Your task to perform on an android device: turn off location Image 0: 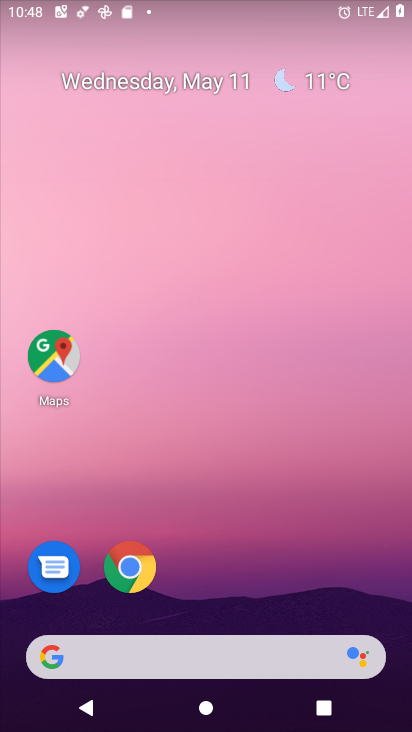
Step 0: drag from (231, 547) to (166, 83)
Your task to perform on an android device: turn off location Image 1: 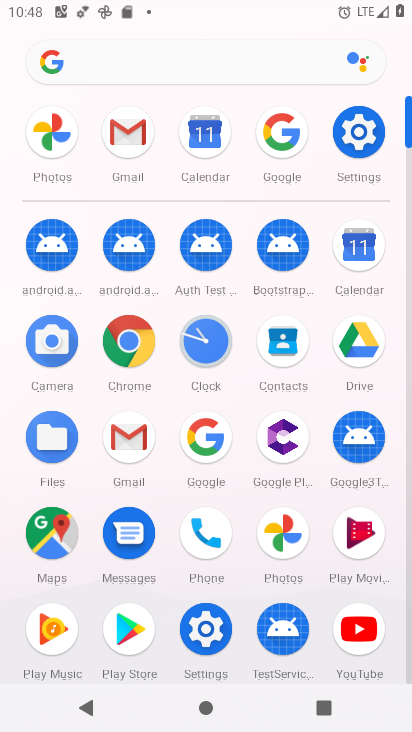
Step 1: click (360, 132)
Your task to perform on an android device: turn off location Image 2: 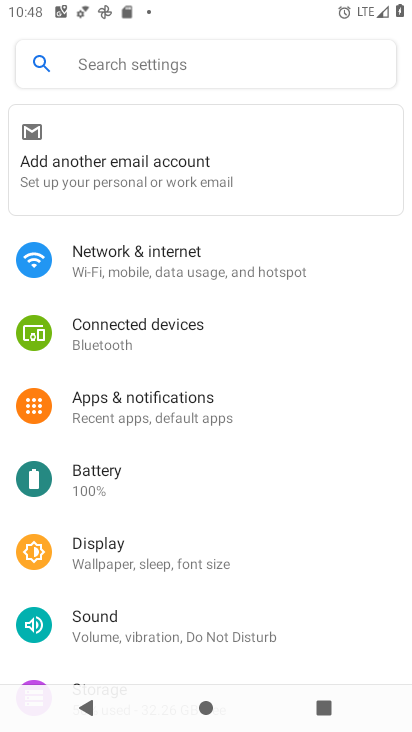
Step 2: drag from (180, 618) to (184, 125)
Your task to perform on an android device: turn off location Image 3: 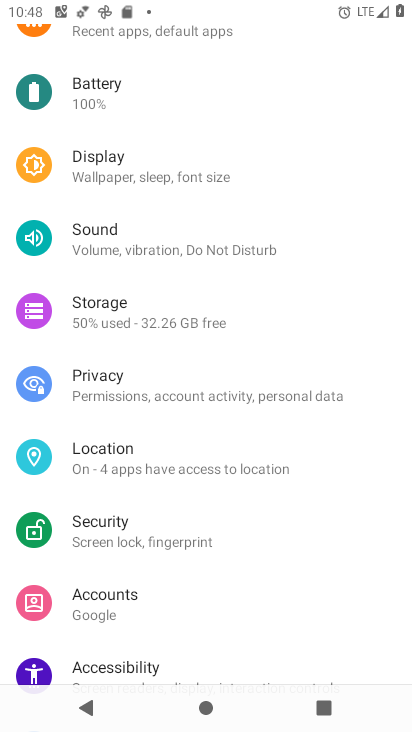
Step 3: click (176, 465)
Your task to perform on an android device: turn off location Image 4: 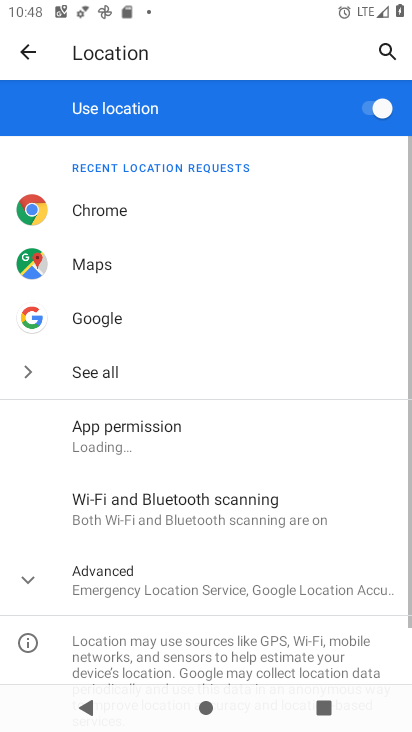
Step 4: click (372, 104)
Your task to perform on an android device: turn off location Image 5: 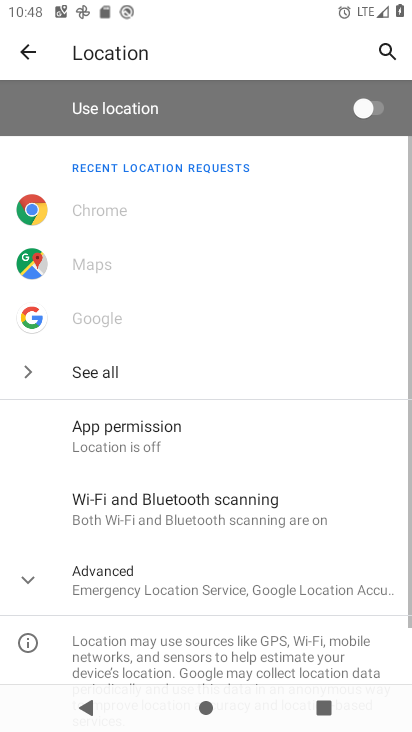
Step 5: task complete